Your task to perform on an android device: allow notifications from all sites in the chrome app Image 0: 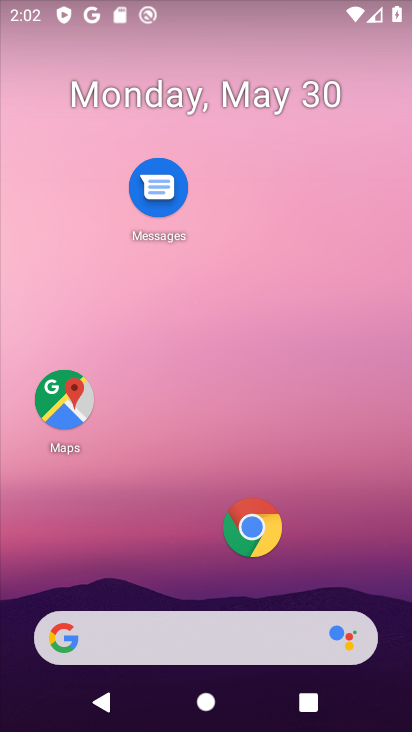
Step 0: drag from (166, 574) to (266, 131)
Your task to perform on an android device: allow notifications from all sites in the chrome app Image 1: 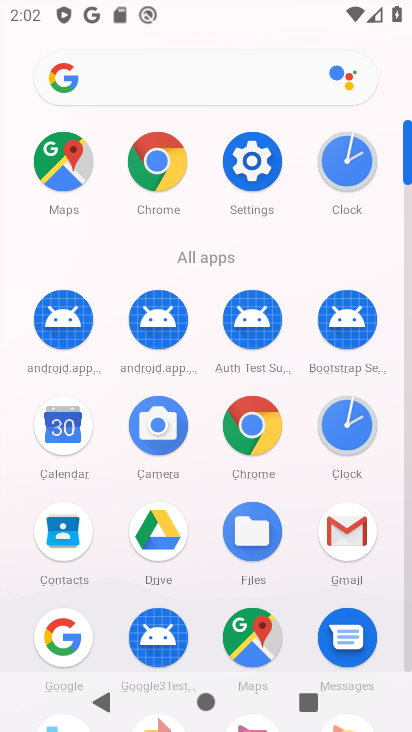
Step 1: click (255, 444)
Your task to perform on an android device: allow notifications from all sites in the chrome app Image 2: 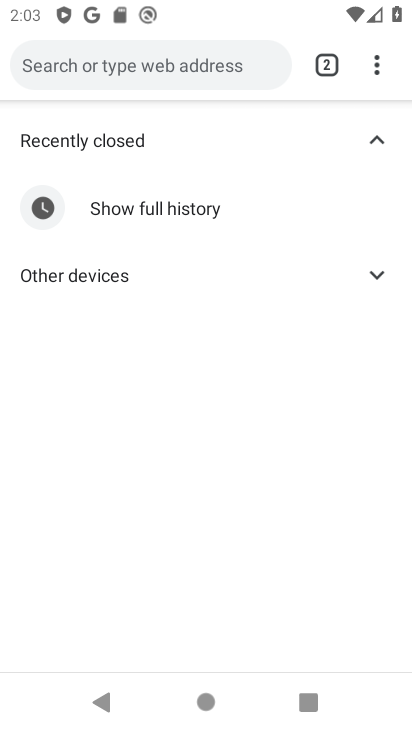
Step 2: click (374, 70)
Your task to perform on an android device: allow notifications from all sites in the chrome app Image 3: 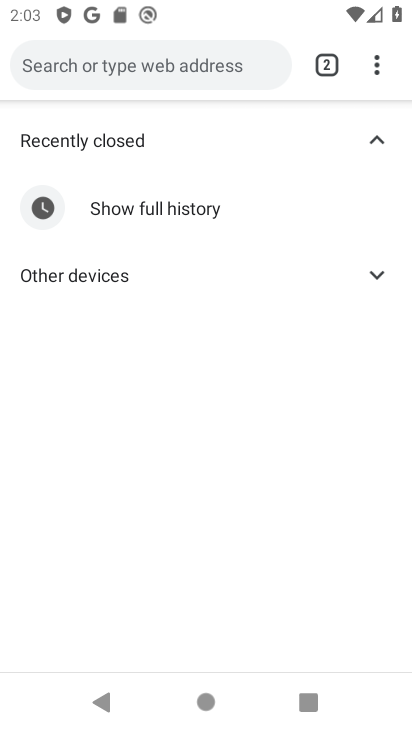
Step 3: click (377, 75)
Your task to perform on an android device: allow notifications from all sites in the chrome app Image 4: 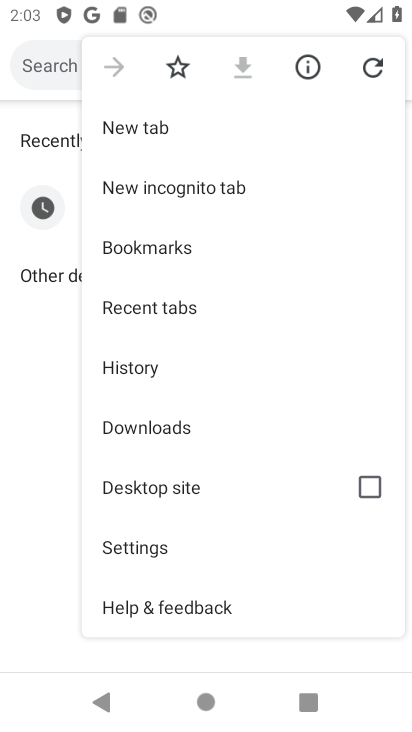
Step 4: click (137, 552)
Your task to perform on an android device: allow notifications from all sites in the chrome app Image 5: 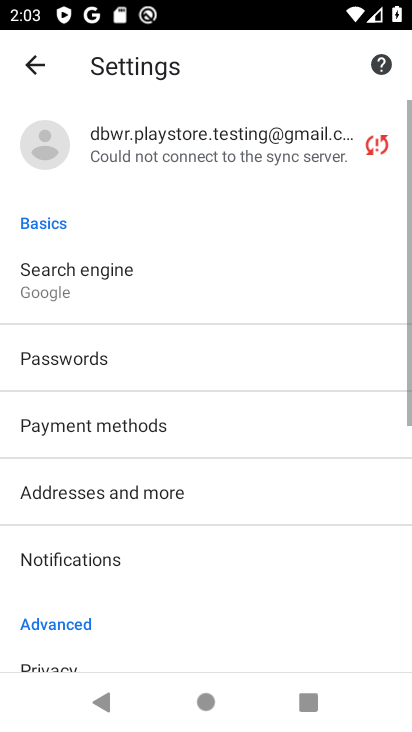
Step 5: drag from (143, 595) to (208, 225)
Your task to perform on an android device: allow notifications from all sites in the chrome app Image 6: 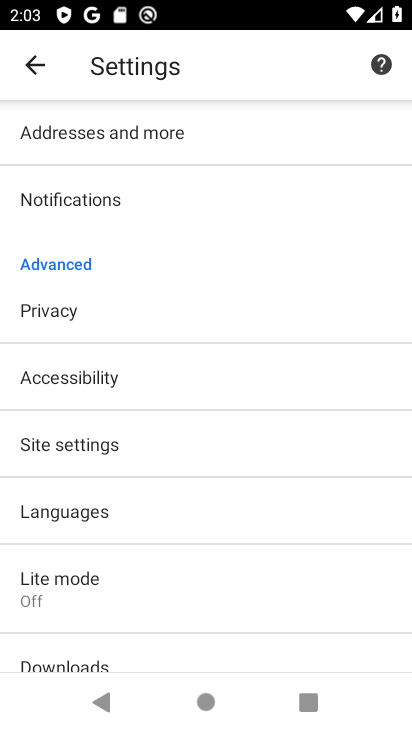
Step 6: drag from (121, 564) to (189, 264)
Your task to perform on an android device: allow notifications from all sites in the chrome app Image 7: 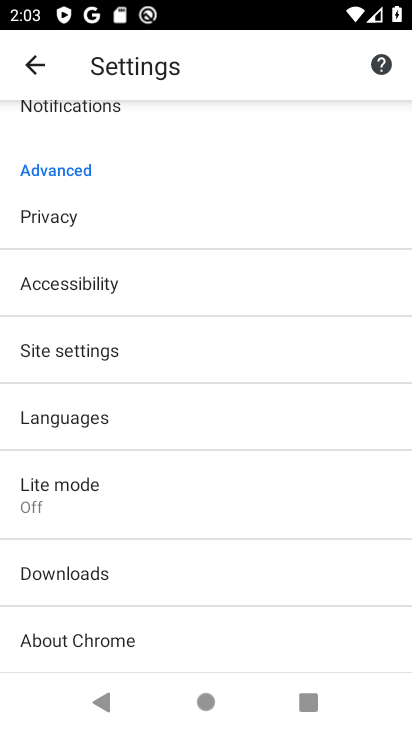
Step 7: click (140, 353)
Your task to perform on an android device: allow notifications from all sites in the chrome app Image 8: 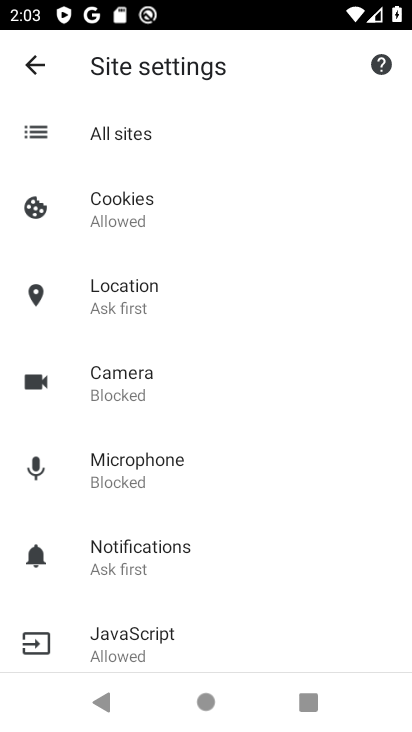
Step 8: click (151, 146)
Your task to perform on an android device: allow notifications from all sites in the chrome app Image 9: 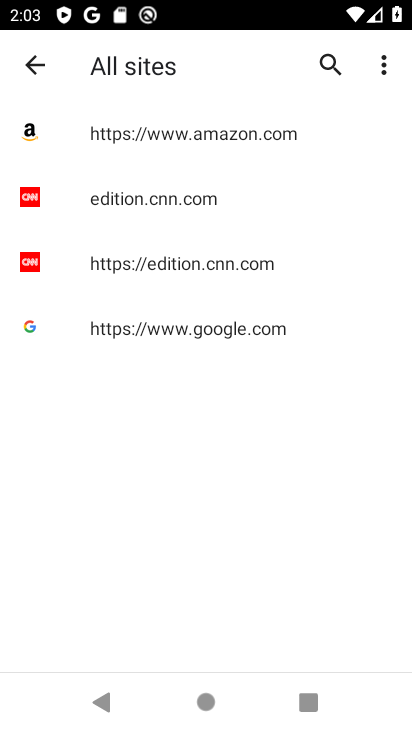
Step 9: task complete